Your task to perform on an android device: change the clock display to show seconds Image 0: 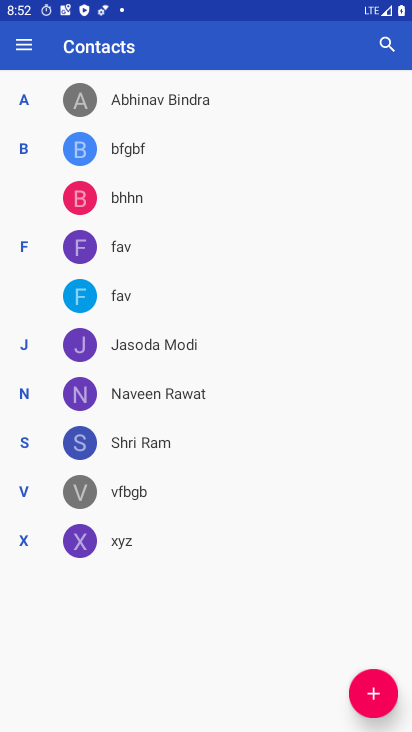
Step 0: press home button
Your task to perform on an android device: change the clock display to show seconds Image 1: 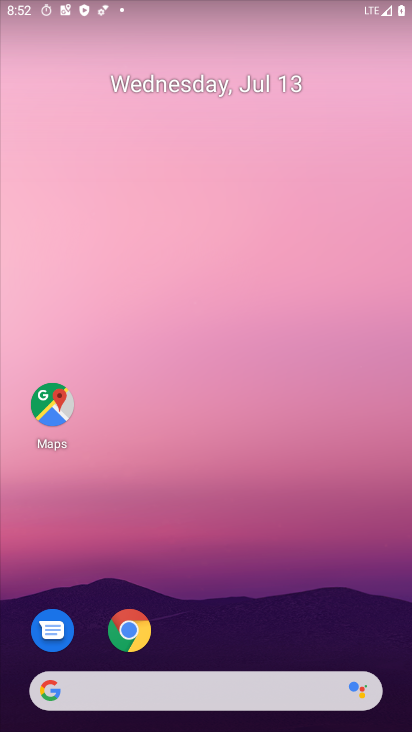
Step 1: drag from (371, 644) to (362, 148)
Your task to perform on an android device: change the clock display to show seconds Image 2: 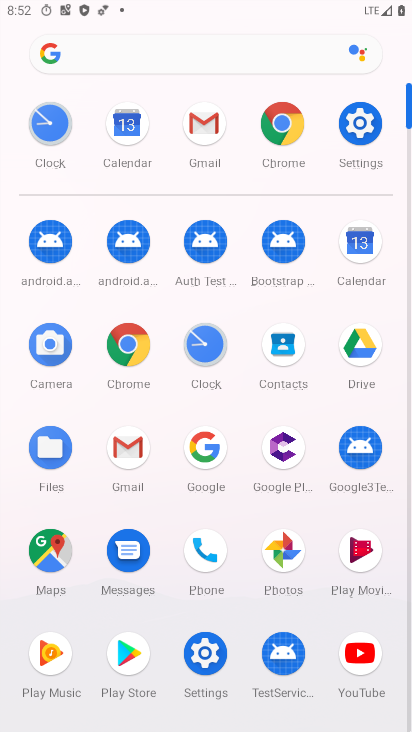
Step 2: click (203, 347)
Your task to perform on an android device: change the clock display to show seconds Image 3: 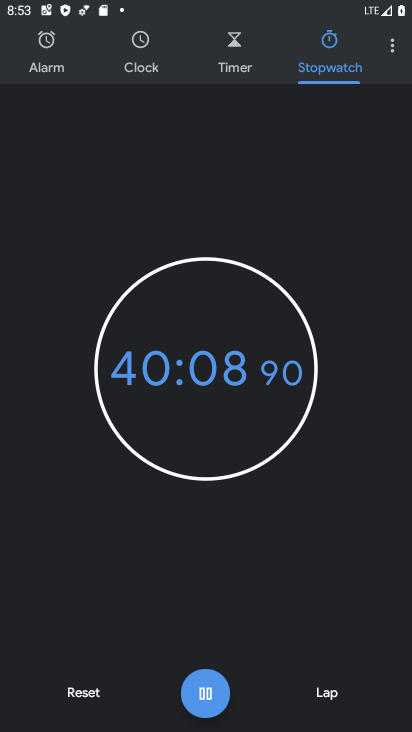
Step 3: click (392, 54)
Your task to perform on an android device: change the clock display to show seconds Image 4: 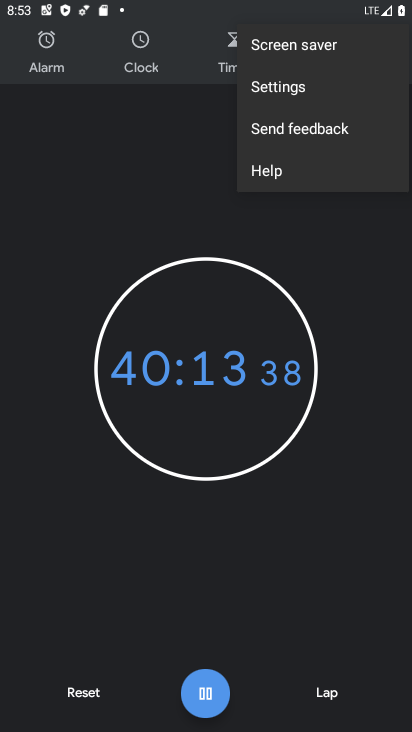
Step 4: click (315, 98)
Your task to perform on an android device: change the clock display to show seconds Image 5: 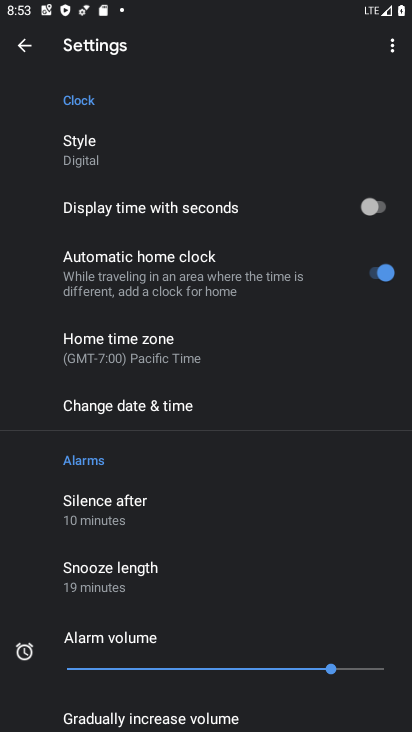
Step 5: drag from (351, 503) to (348, 422)
Your task to perform on an android device: change the clock display to show seconds Image 6: 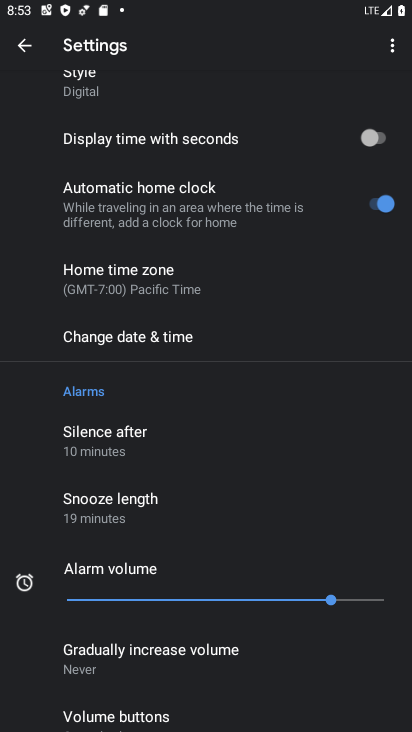
Step 6: drag from (350, 478) to (347, 377)
Your task to perform on an android device: change the clock display to show seconds Image 7: 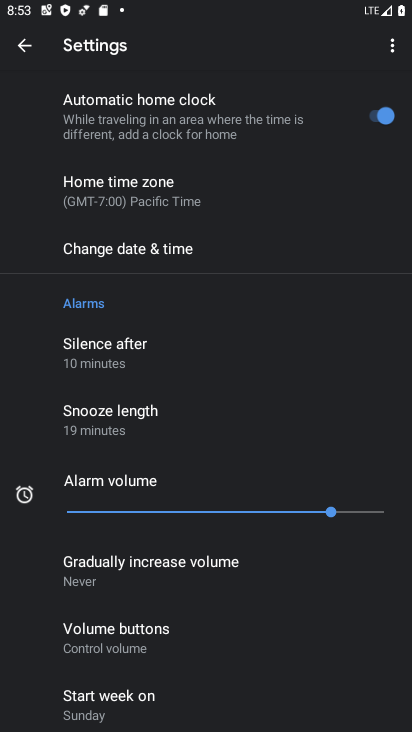
Step 7: drag from (328, 555) to (329, 480)
Your task to perform on an android device: change the clock display to show seconds Image 8: 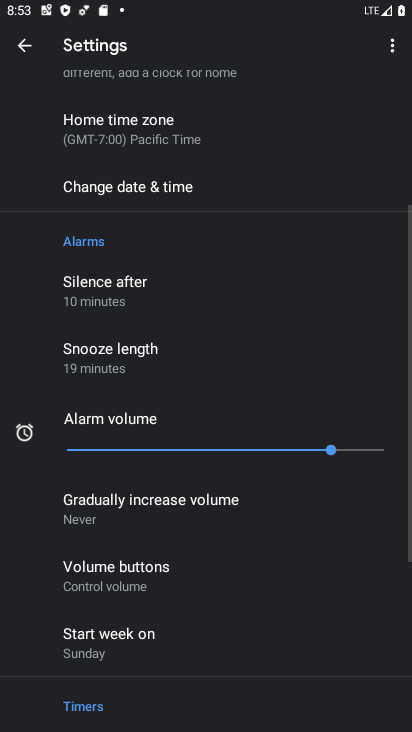
Step 8: drag from (347, 558) to (357, 404)
Your task to perform on an android device: change the clock display to show seconds Image 9: 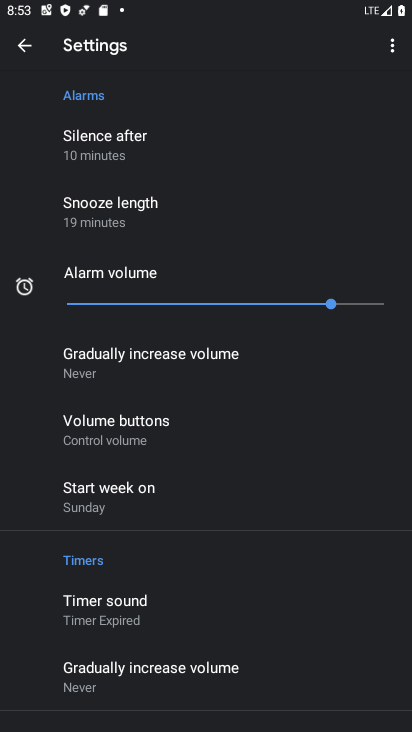
Step 9: drag from (354, 475) to (339, 345)
Your task to perform on an android device: change the clock display to show seconds Image 10: 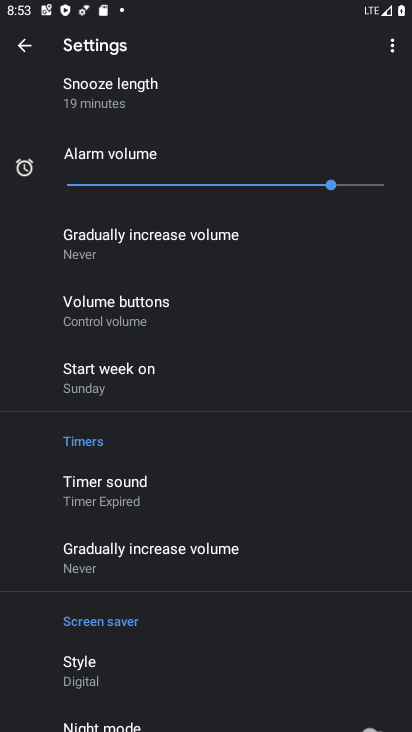
Step 10: drag from (328, 455) to (322, 330)
Your task to perform on an android device: change the clock display to show seconds Image 11: 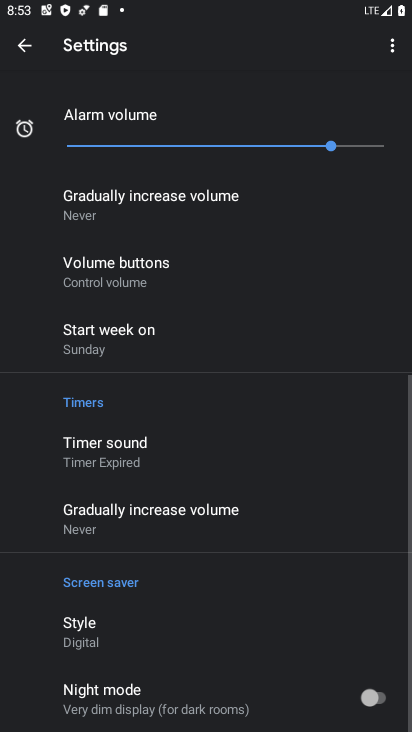
Step 11: drag from (317, 240) to (314, 458)
Your task to perform on an android device: change the clock display to show seconds Image 12: 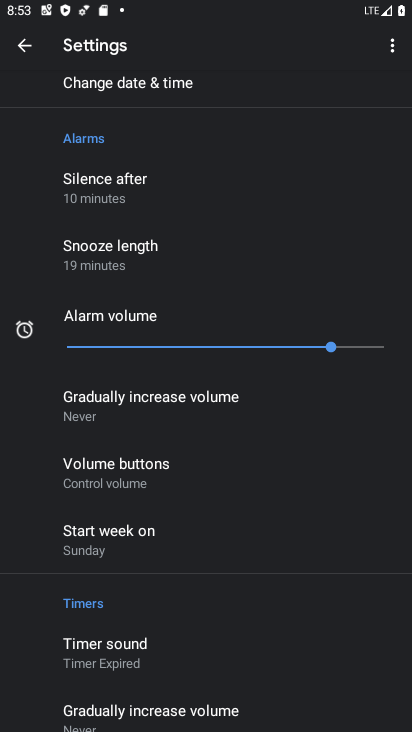
Step 12: drag from (310, 263) to (305, 485)
Your task to perform on an android device: change the clock display to show seconds Image 13: 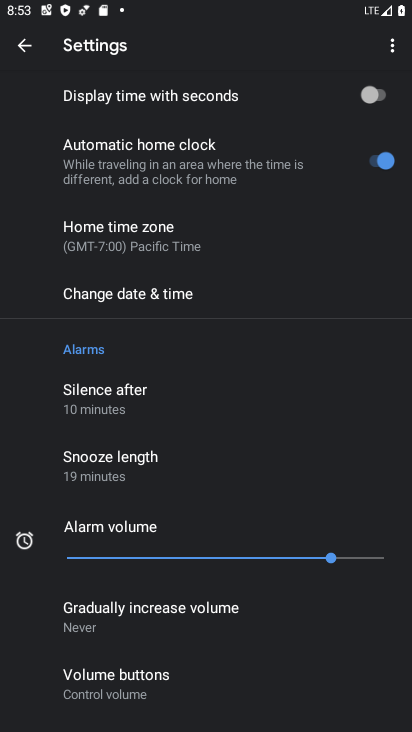
Step 13: drag from (318, 263) to (308, 405)
Your task to perform on an android device: change the clock display to show seconds Image 14: 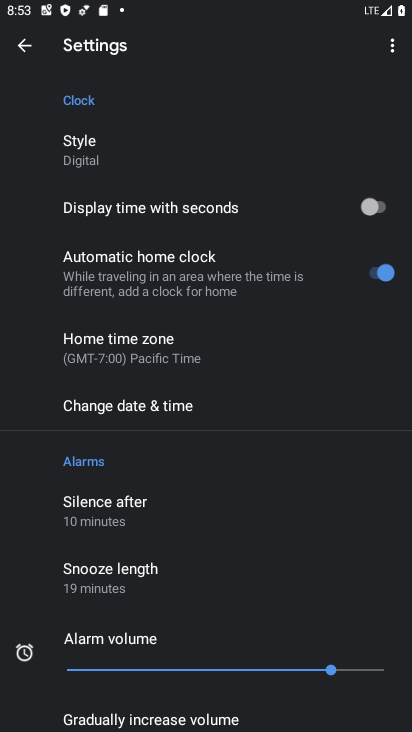
Step 14: click (365, 212)
Your task to perform on an android device: change the clock display to show seconds Image 15: 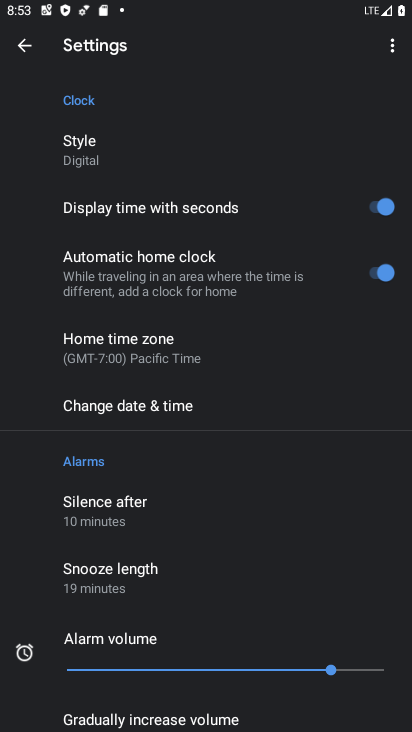
Step 15: task complete